Your task to perform on an android device: turn off location history Image 0: 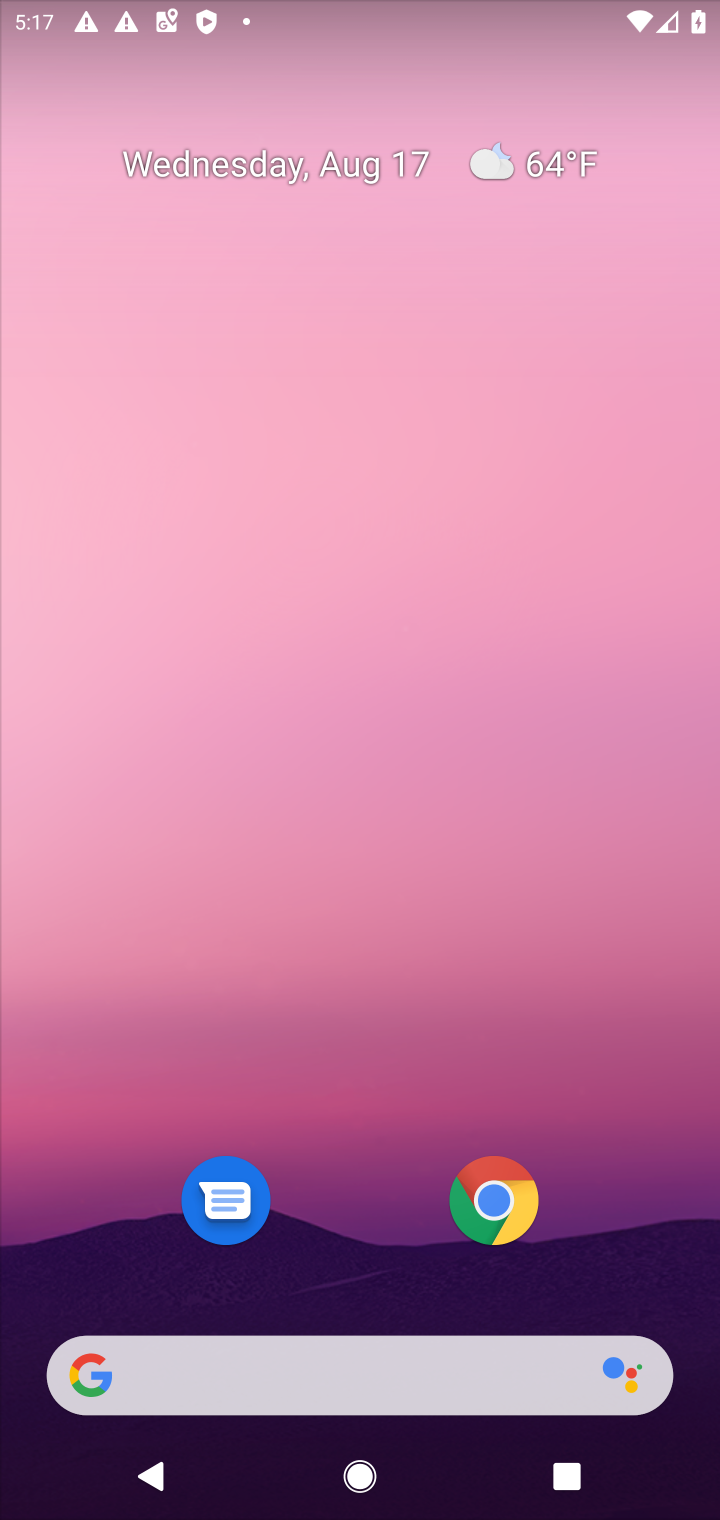
Step 0: drag from (360, 1293) to (303, 109)
Your task to perform on an android device: turn off location history Image 1: 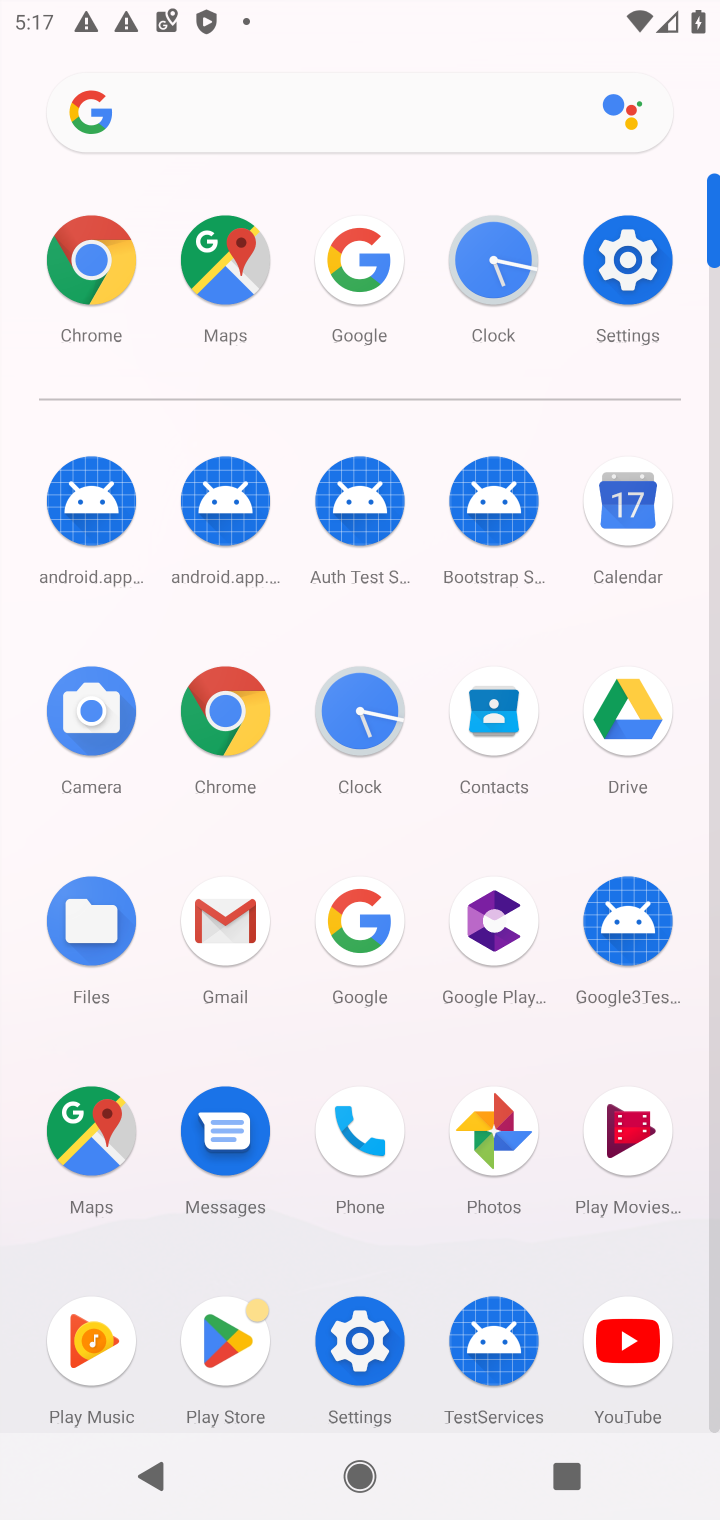
Step 1: click (633, 271)
Your task to perform on an android device: turn off location history Image 2: 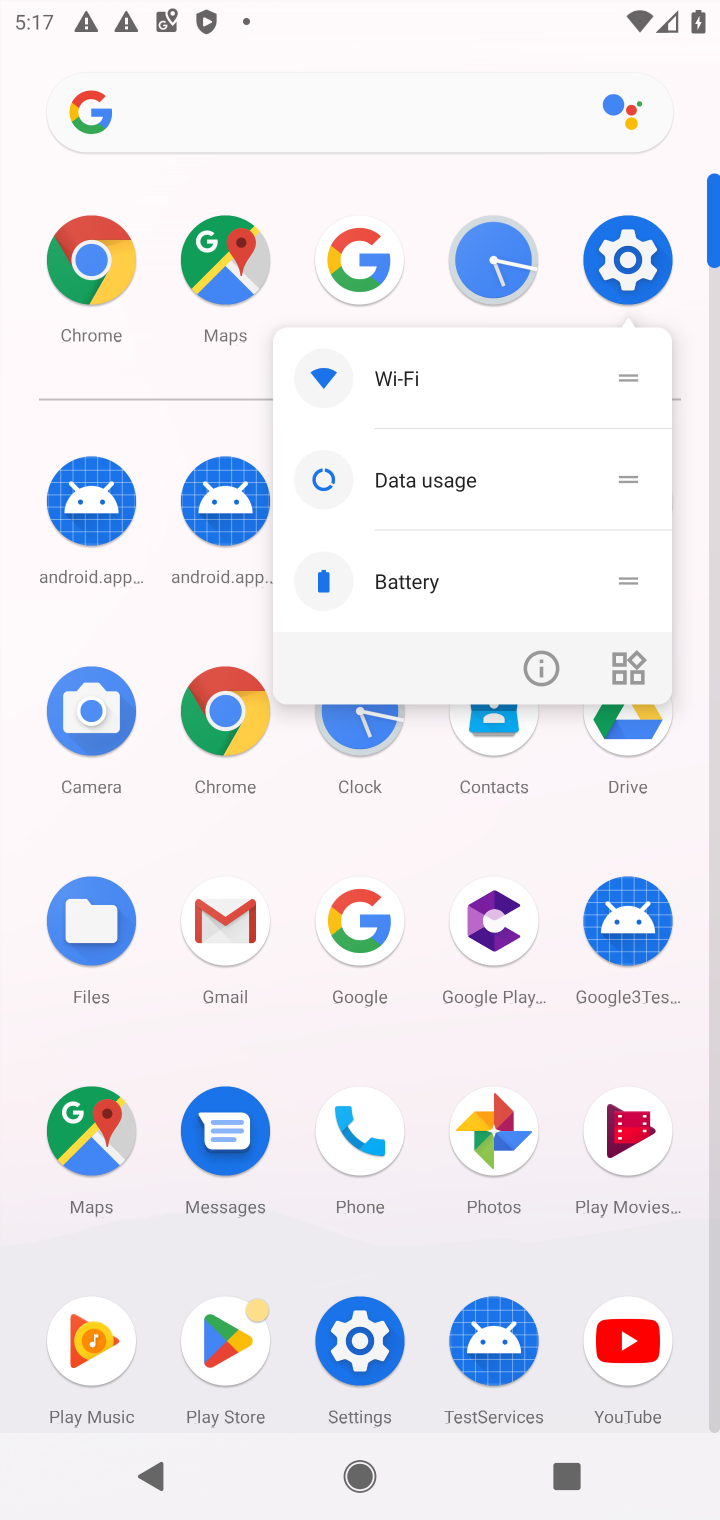
Step 2: click (633, 275)
Your task to perform on an android device: turn off location history Image 3: 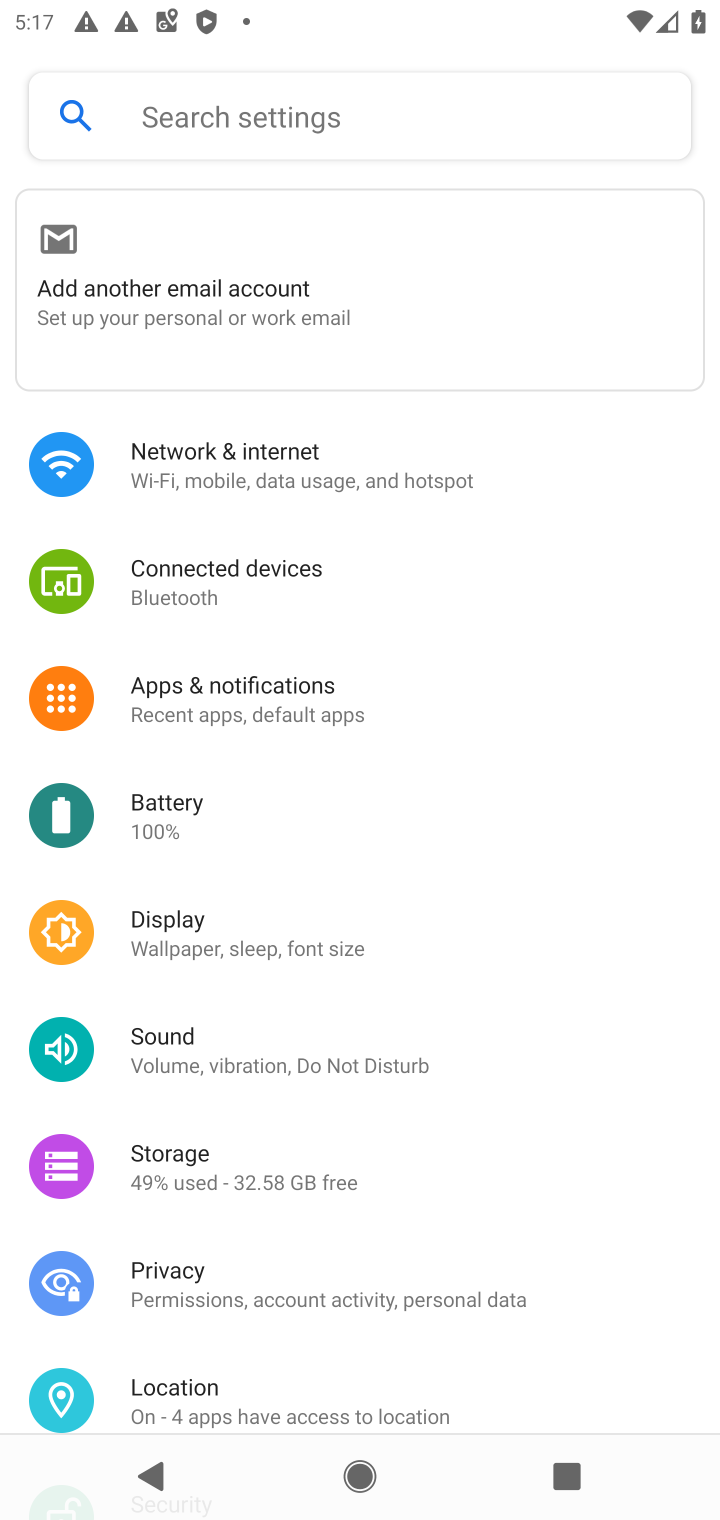
Step 3: click (191, 1390)
Your task to perform on an android device: turn off location history Image 4: 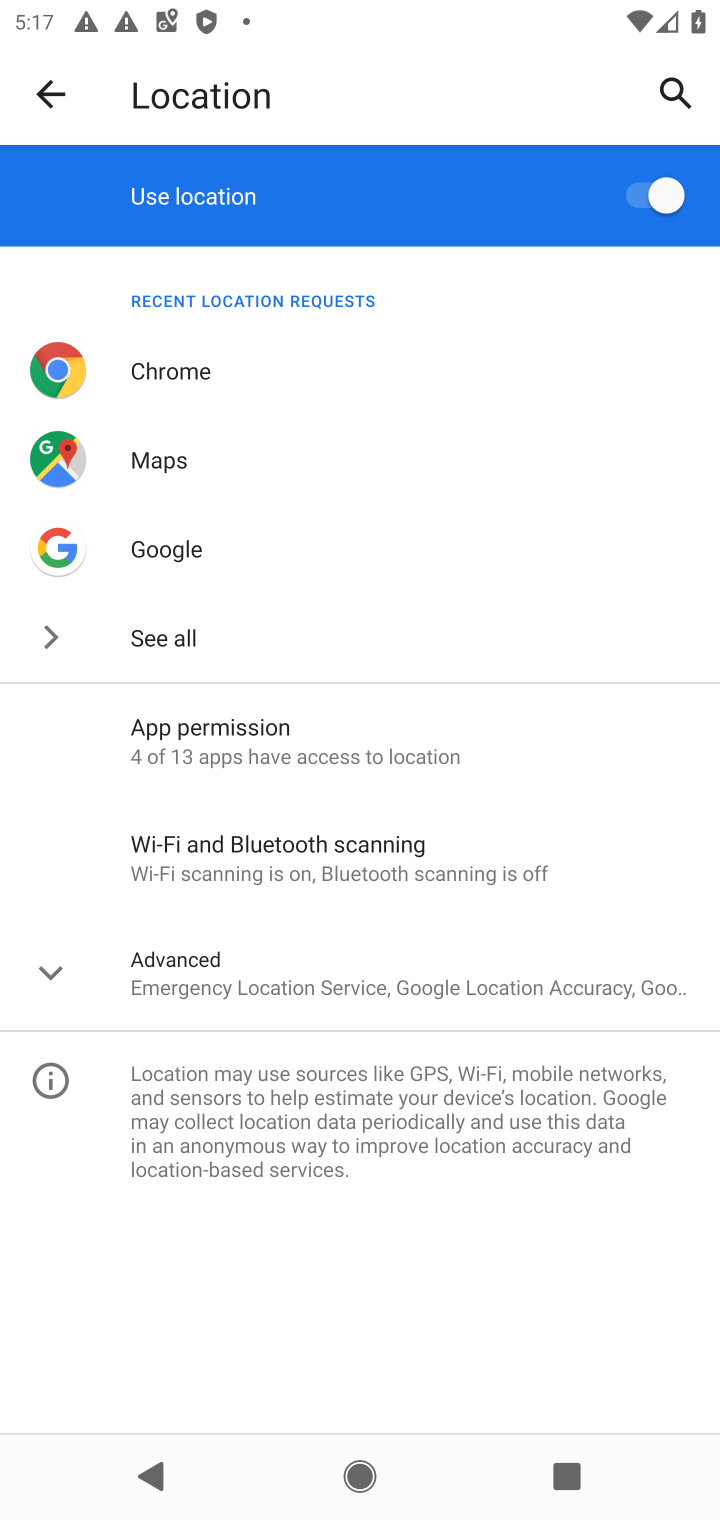
Step 4: click (178, 952)
Your task to perform on an android device: turn off location history Image 5: 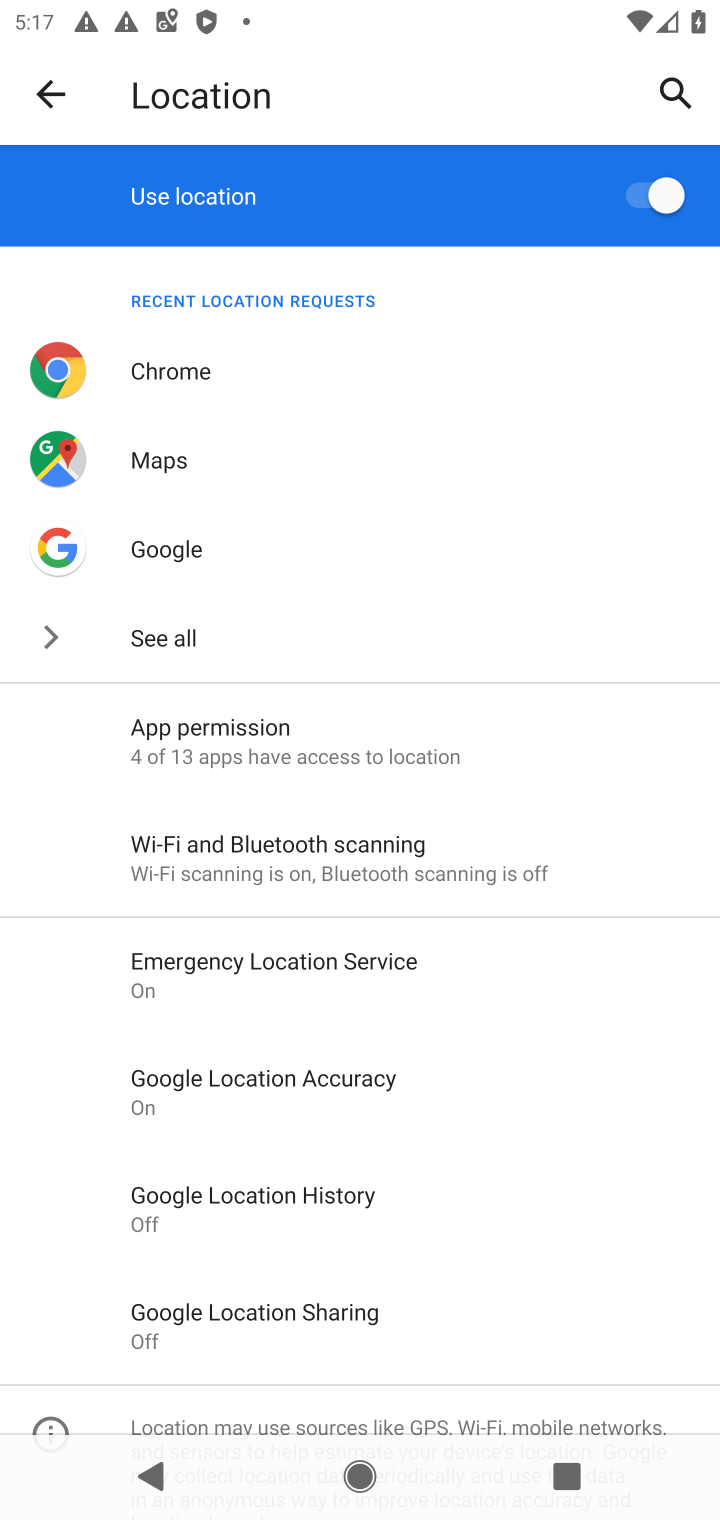
Step 5: click (291, 1202)
Your task to perform on an android device: turn off location history Image 6: 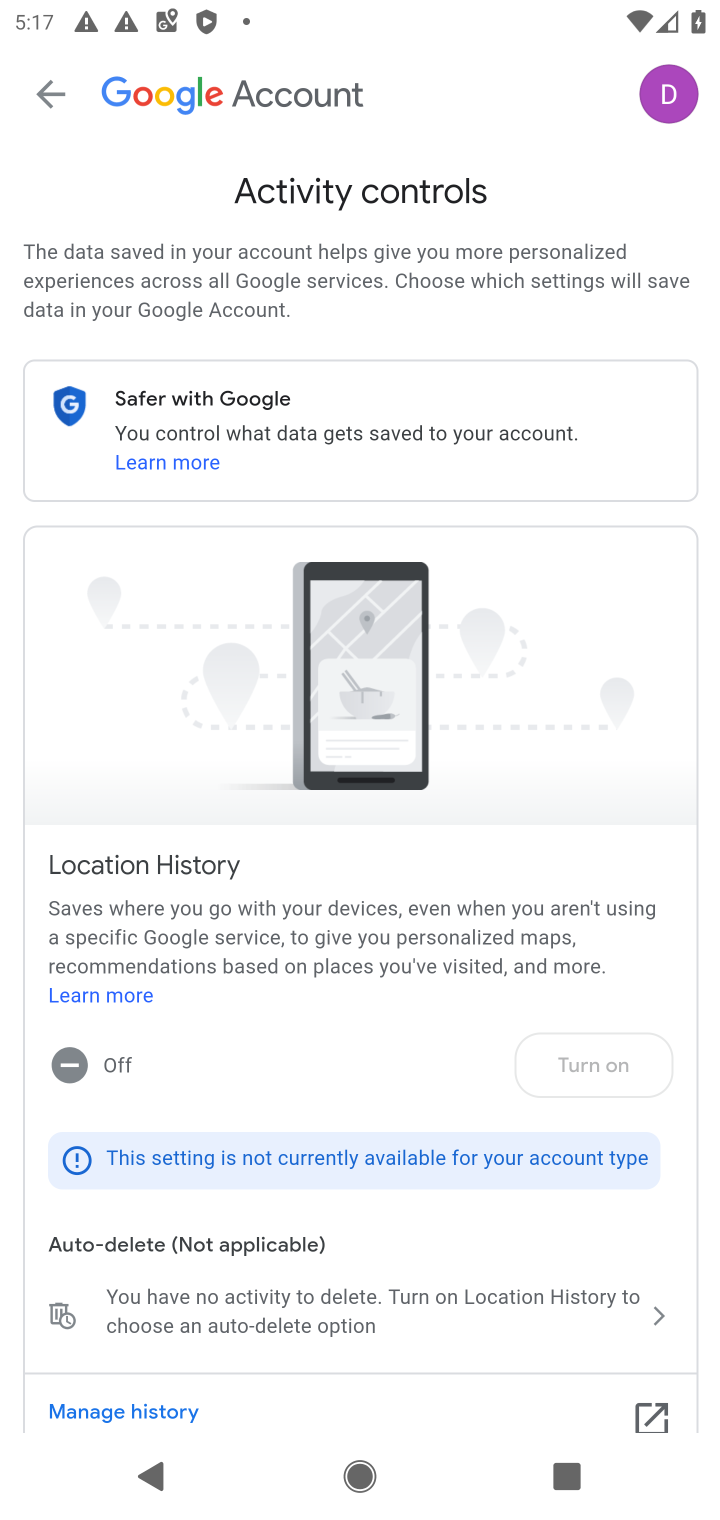
Step 6: task complete